Your task to perform on an android device: add a contact Image 0: 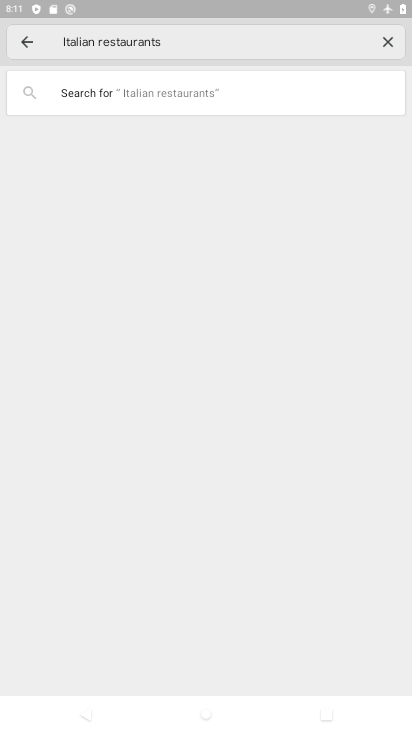
Step 0: press home button
Your task to perform on an android device: add a contact Image 1: 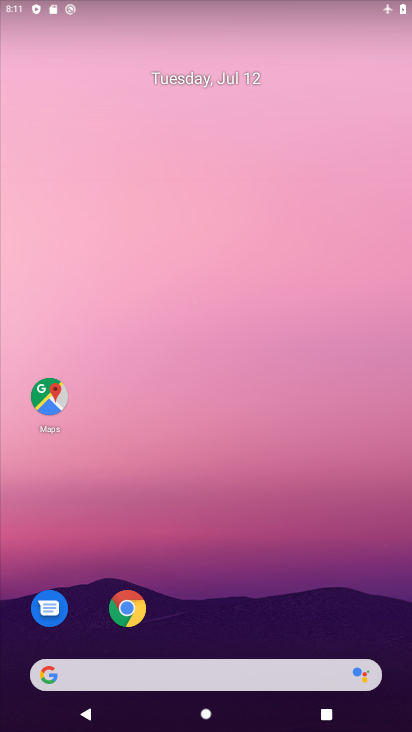
Step 1: drag from (193, 643) to (101, 56)
Your task to perform on an android device: add a contact Image 2: 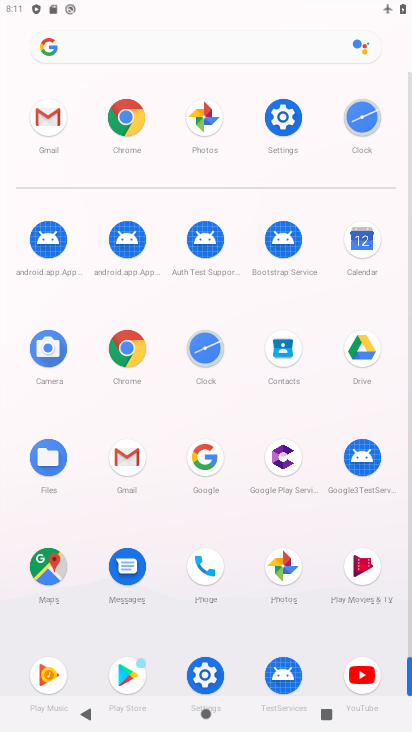
Step 2: click (208, 571)
Your task to perform on an android device: add a contact Image 3: 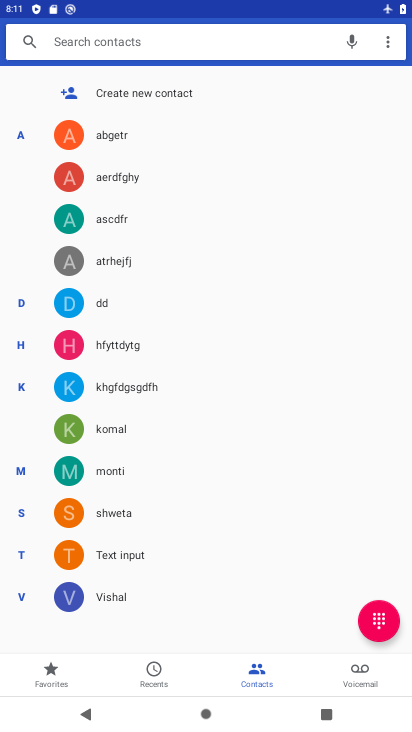
Step 3: click (83, 72)
Your task to perform on an android device: add a contact Image 4: 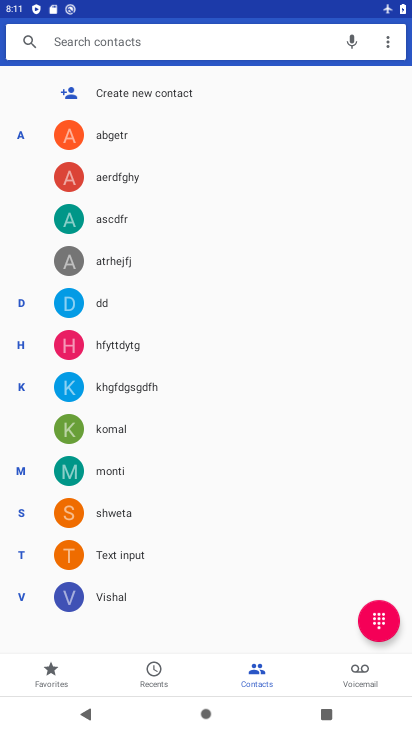
Step 4: click (103, 85)
Your task to perform on an android device: add a contact Image 5: 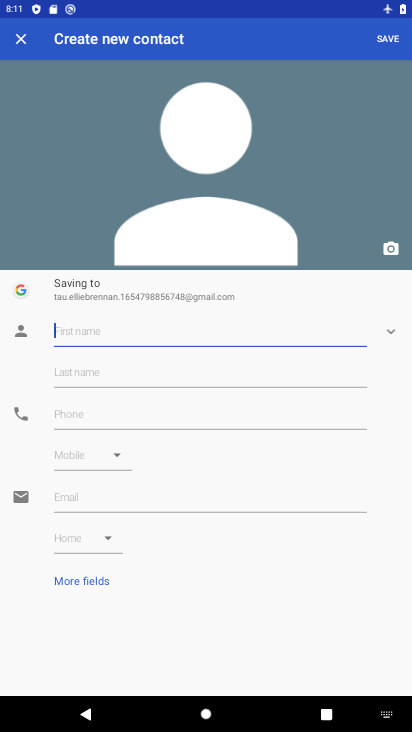
Step 5: type "Text"
Your task to perform on an android device: add a contact Image 6: 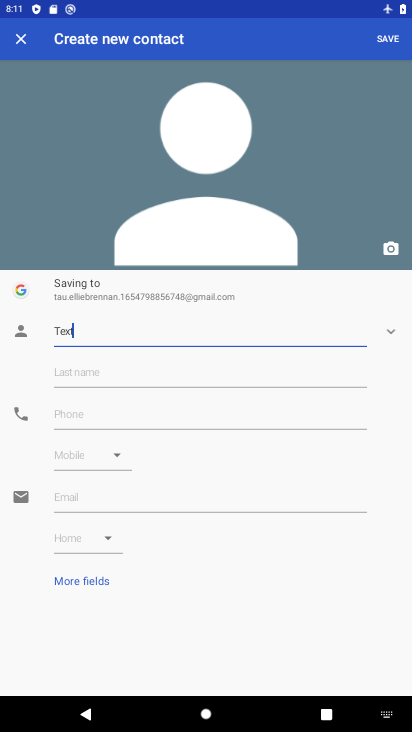
Step 6: type ""
Your task to perform on an android device: add a contact Image 7: 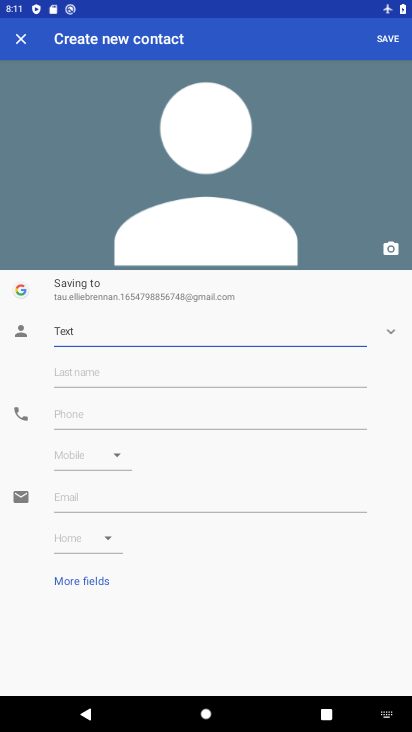
Step 7: click (105, 418)
Your task to perform on an android device: add a contact Image 8: 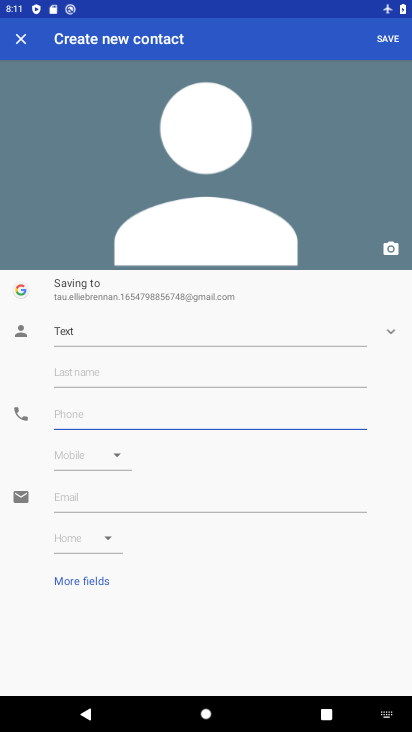
Step 8: type "32."
Your task to perform on an android device: add a contact Image 9: 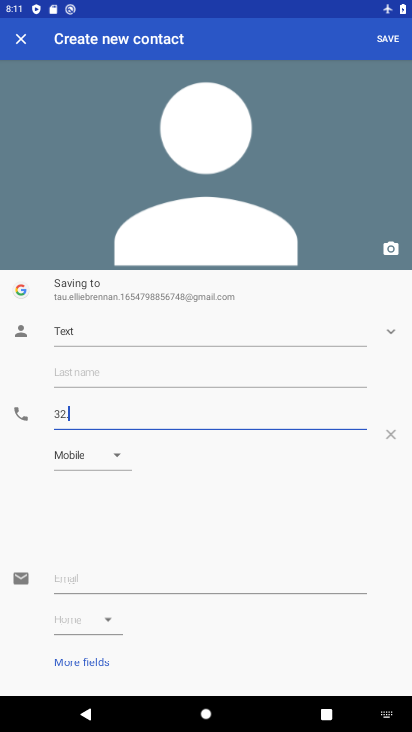
Step 9: type ""
Your task to perform on an android device: add a contact Image 10: 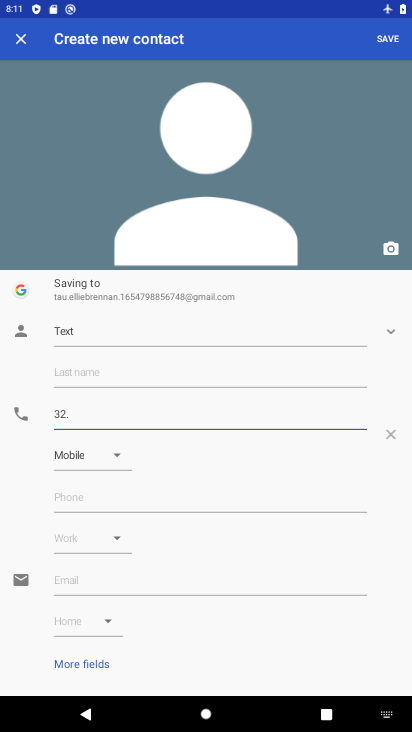
Step 10: click (393, 34)
Your task to perform on an android device: add a contact Image 11: 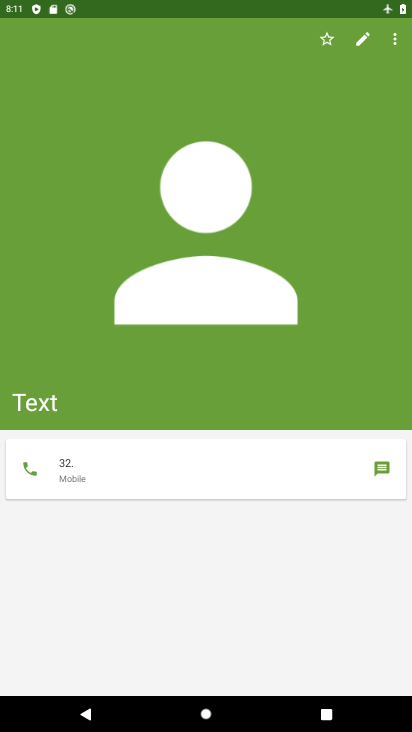
Step 11: task complete